Your task to perform on an android device: Search for Mexican restaurants on Maps Image 0: 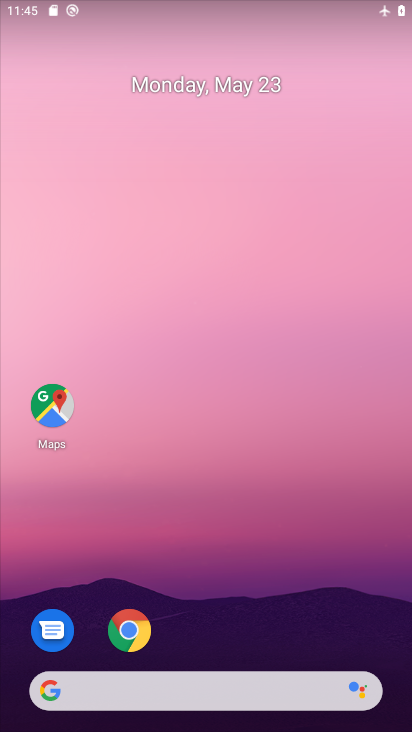
Step 0: click (58, 409)
Your task to perform on an android device: Search for Mexican restaurants on Maps Image 1: 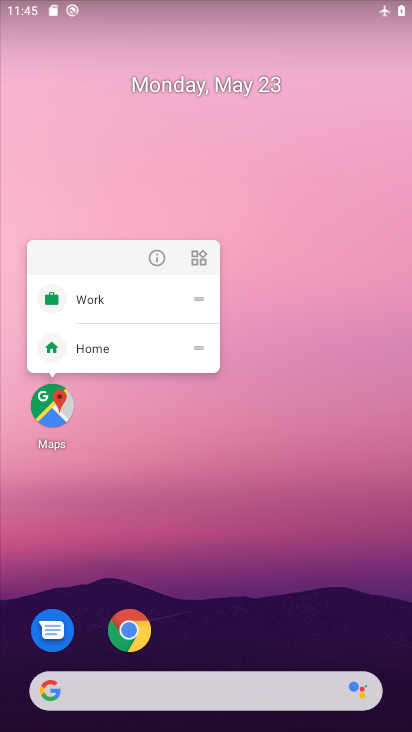
Step 1: click (53, 398)
Your task to perform on an android device: Search for Mexican restaurants on Maps Image 2: 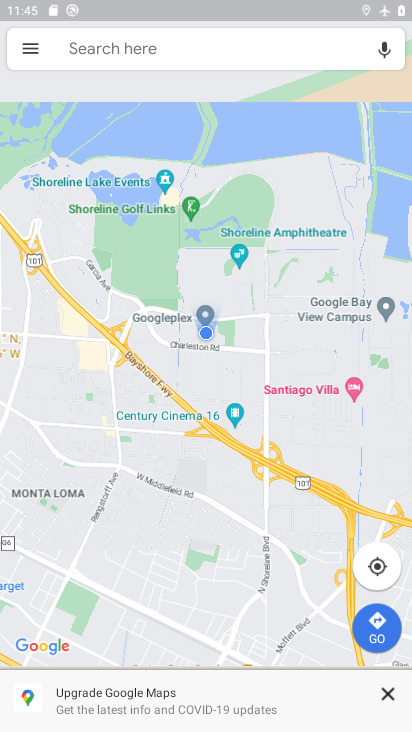
Step 2: click (165, 37)
Your task to perform on an android device: Search for Mexican restaurants on Maps Image 3: 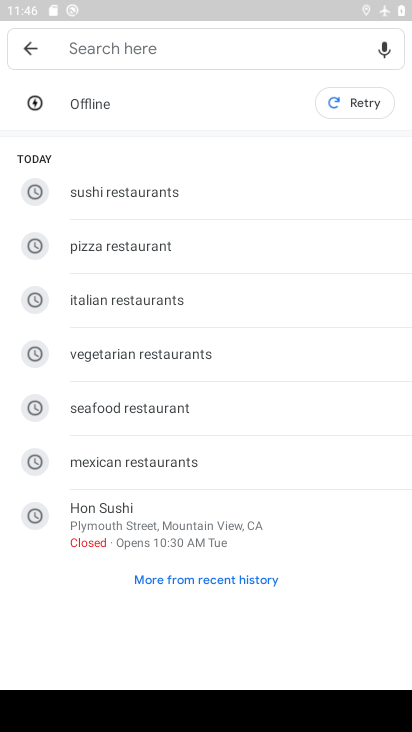
Step 3: type "mexican restaurants"
Your task to perform on an android device: Search for Mexican restaurants on Maps Image 4: 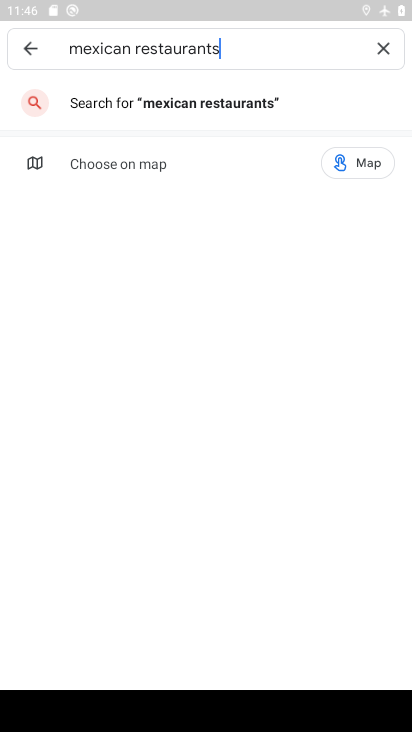
Step 4: click (227, 120)
Your task to perform on an android device: Search for Mexican restaurants on Maps Image 5: 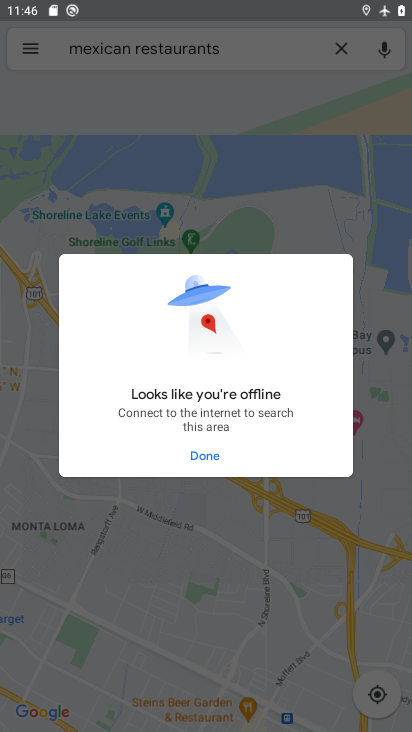
Step 5: task complete